Your task to perform on an android device: Search for vegetarian restaurants on Maps Image 0: 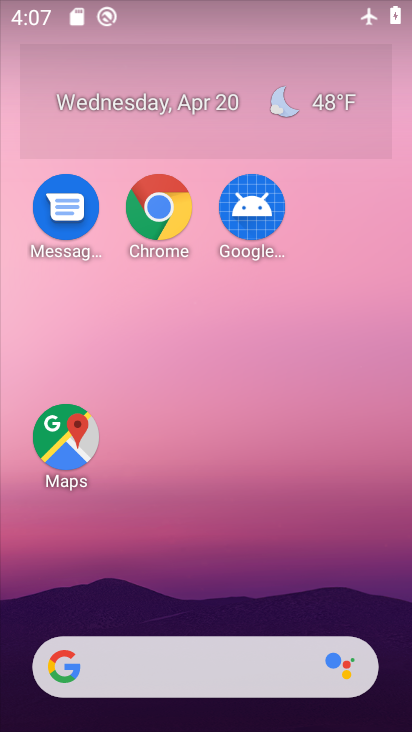
Step 0: click (201, 335)
Your task to perform on an android device: Search for vegetarian restaurants on Maps Image 1: 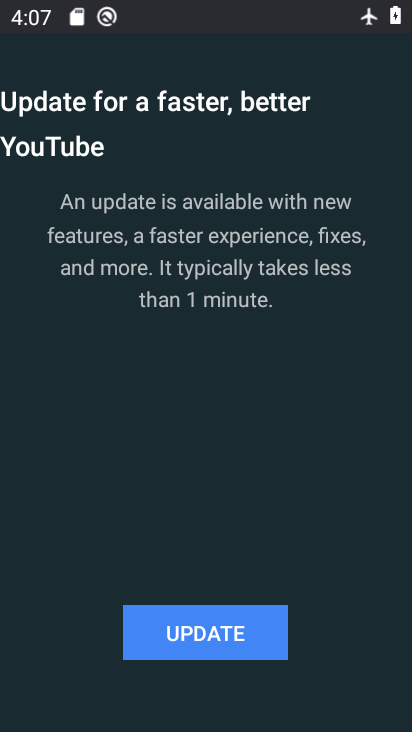
Step 1: press home button
Your task to perform on an android device: Search for vegetarian restaurants on Maps Image 2: 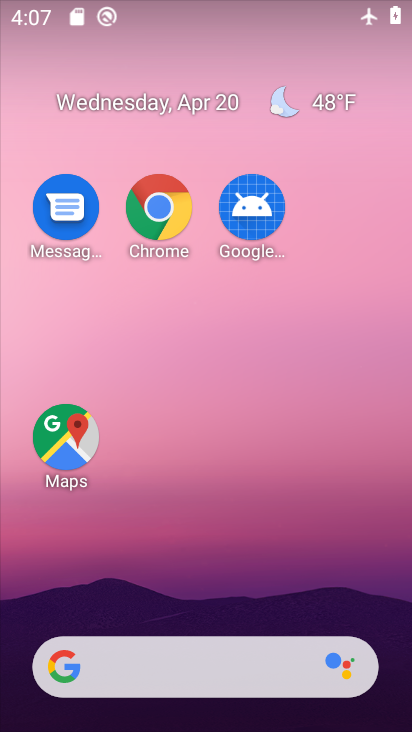
Step 2: drag from (304, 595) to (300, 236)
Your task to perform on an android device: Search for vegetarian restaurants on Maps Image 3: 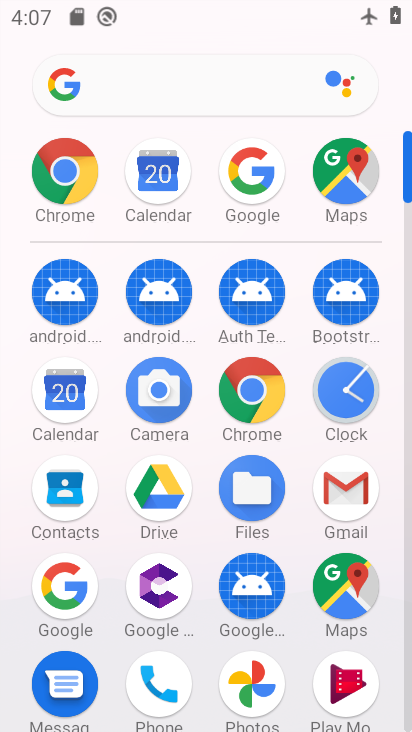
Step 3: click (350, 166)
Your task to perform on an android device: Search for vegetarian restaurants on Maps Image 4: 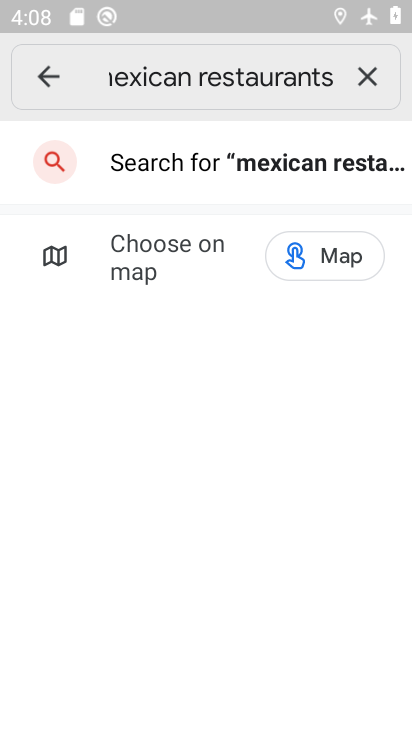
Step 4: click (360, 66)
Your task to perform on an android device: Search for vegetarian restaurants on Maps Image 5: 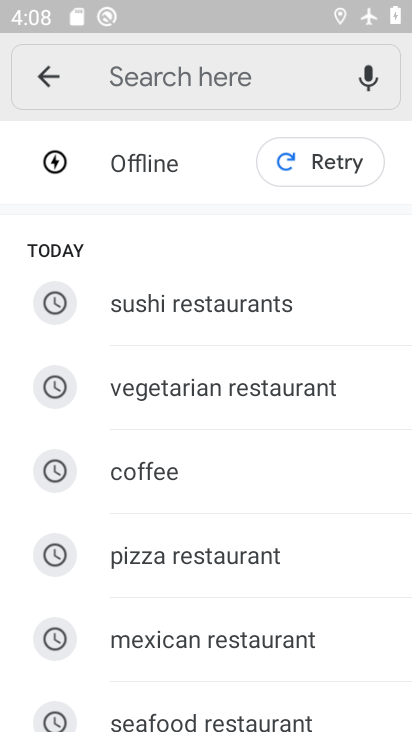
Step 5: task complete